Your task to perform on an android device: open a bookmark in the chrome app Image 0: 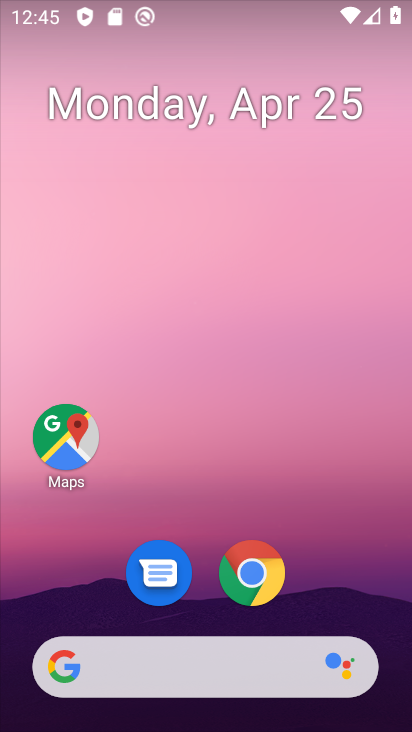
Step 0: click (248, 578)
Your task to perform on an android device: open a bookmark in the chrome app Image 1: 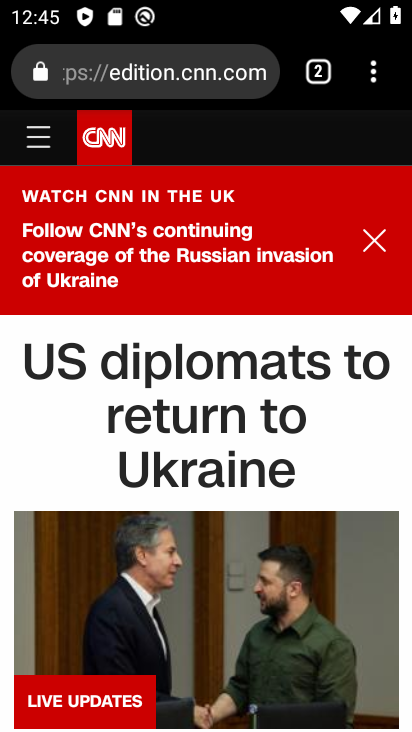
Step 1: click (374, 73)
Your task to perform on an android device: open a bookmark in the chrome app Image 2: 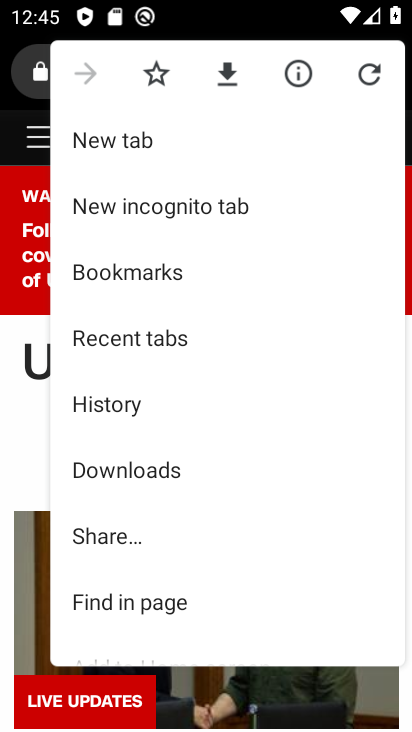
Step 2: click (186, 266)
Your task to perform on an android device: open a bookmark in the chrome app Image 3: 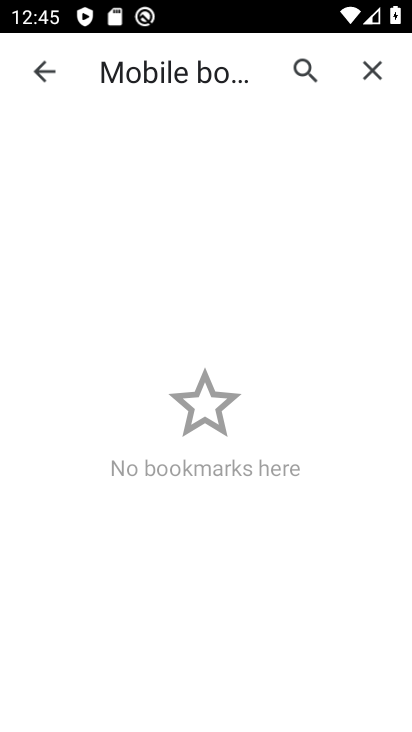
Step 3: task complete